Your task to perform on an android device: add a label to a message in the gmail app Image 0: 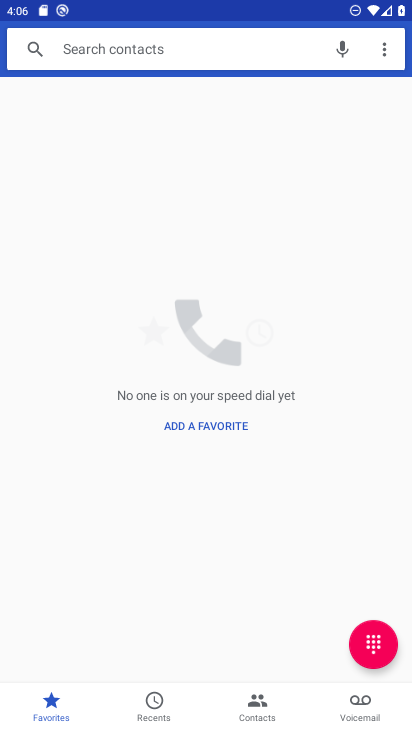
Step 0: press home button
Your task to perform on an android device: add a label to a message in the gmail app Image 1: 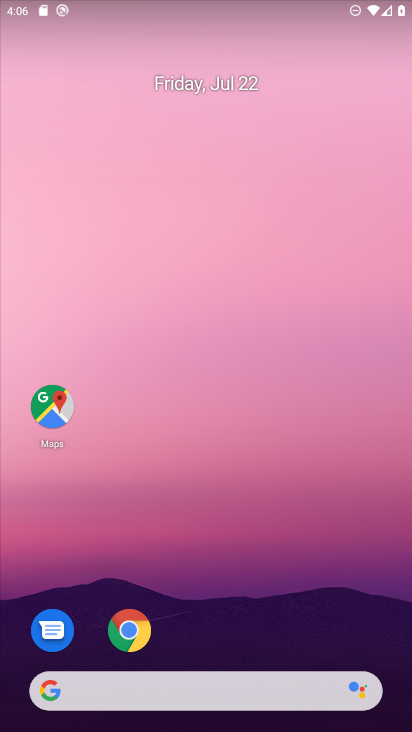
Step 1: drag from (176, 629) to (196, 128)
Your task to perform on an android device: add a label to a message in the gmail app Image 2: 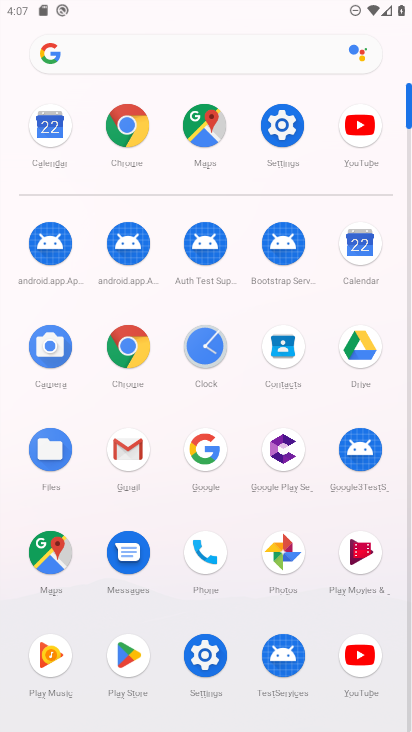
Step 2: click (124, 447)
Your task to perform on an android device: add a label to a message in the gmail app Image 3: 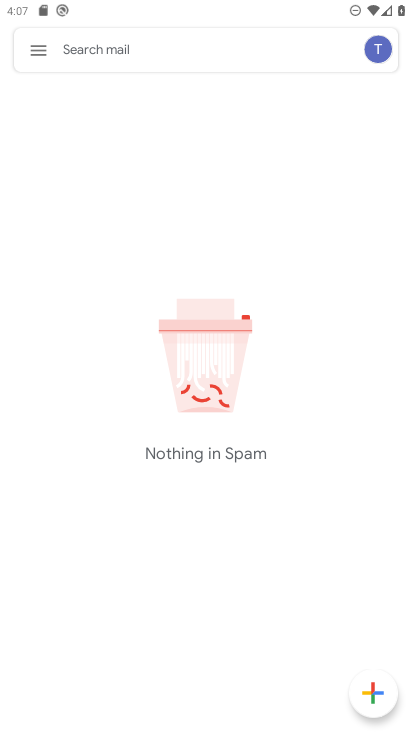
Step 3: click (37, 50)
Your task to perform on an android device: add a label to a message in the gmail app Image 4: 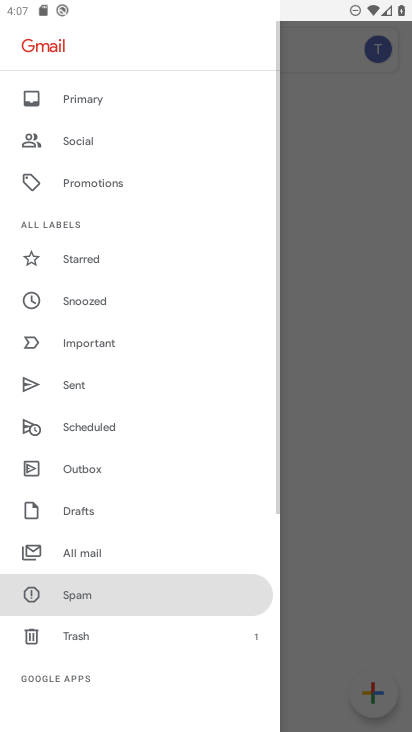
Step 4: drag from (117, 181) to (114, 688)
Your task to perform on an android device: add a label to a message in the gmail app Image 5: 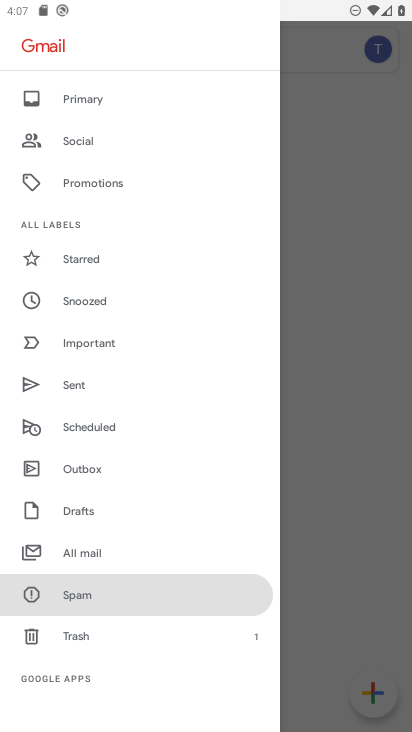
Step 5: click (87, 92)
Your task to perform on an android device: add a label to a message in the gmail app Image 6: 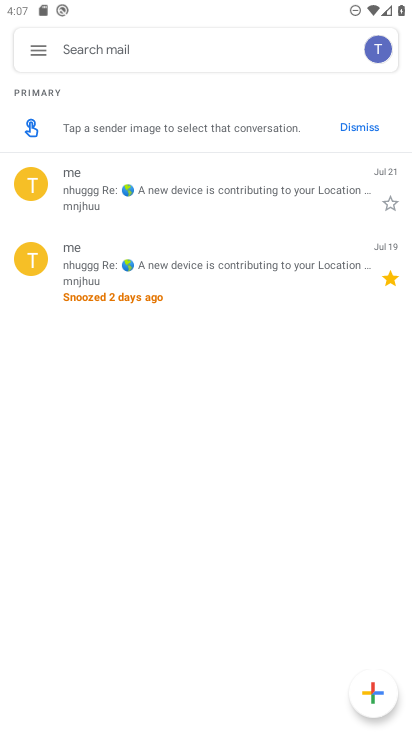
Step 6: click (28, 185)
Your task to perform on an android device: add a label to a message in the gmail app Image 7: 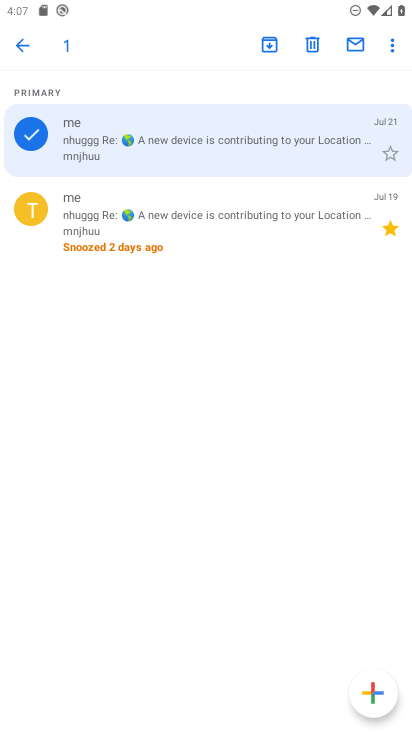
Step 7: click (392, 47)
Your task to perform on an android device: add a label to a message in the gmail app Image 8: 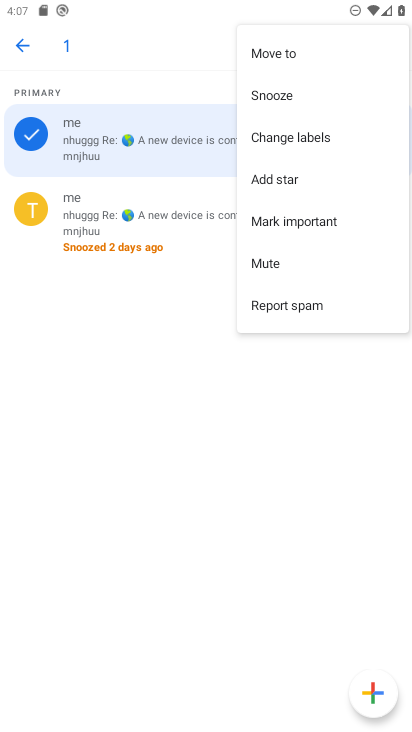
Step 8: click (300, 143)
Your task to perform on an android device: add a label to a message in the gmail app Image 9: 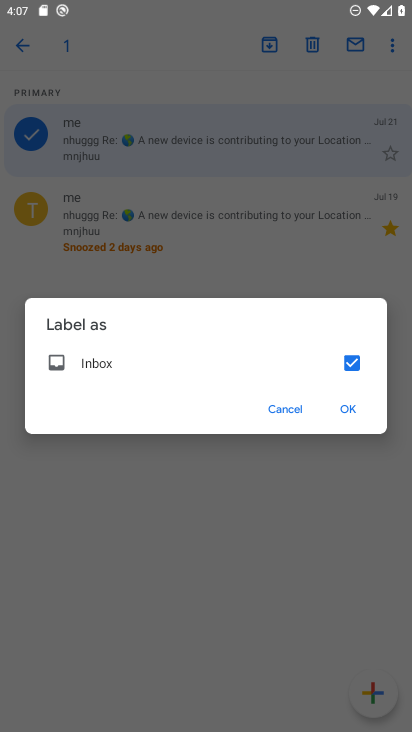
Step 9: click (346, 364)
Your task to perform on an android device: add a label to a message in the gmail app Image 10: 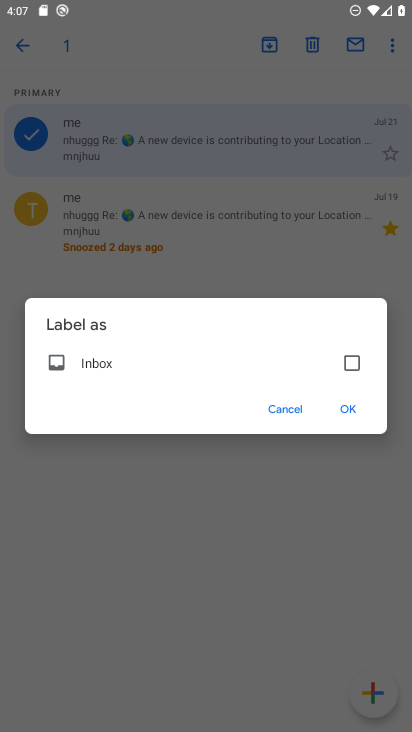
Step 10: click (355, 406)
Your task to perform on an android device: add a label to a message in the gmail app Image 11: 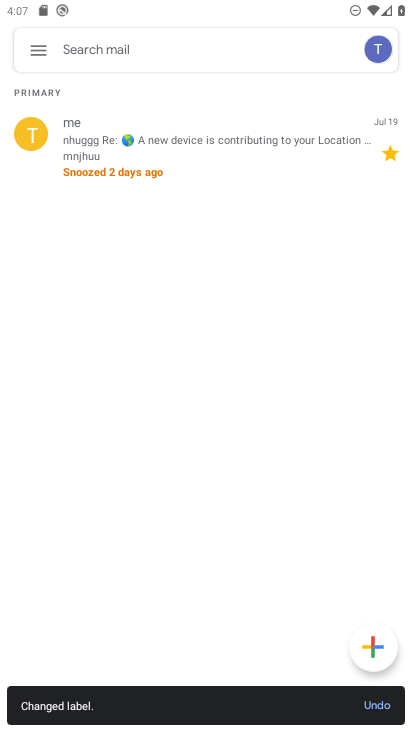
Step 11: task complete